Your task to perform on an android device: toggle pop-ups in chrome Image 0: 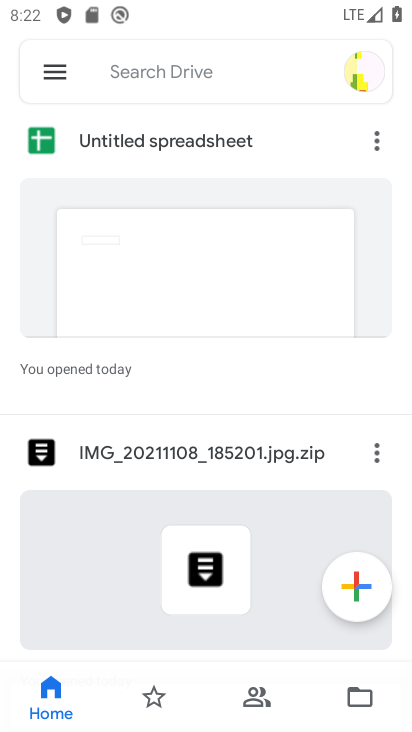
Step 0: press home button
Your task to perform on an android device: toggle pop-ups in chrome Image 1: 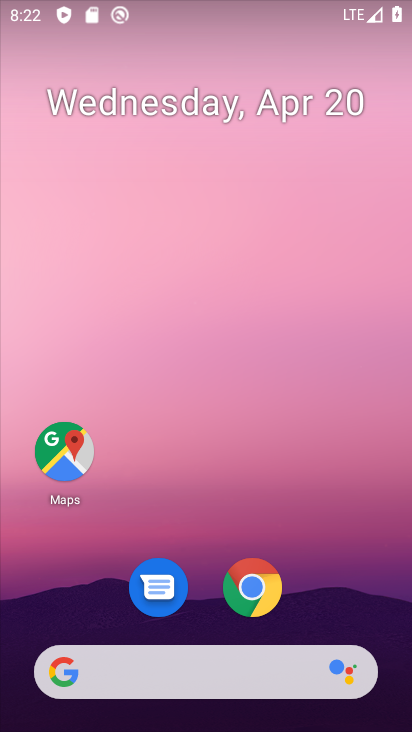
Step 1: drag from (352, 590) to (357, 156)
Your task to perform on an android device: toggle pop-ups in chrome Image 2: 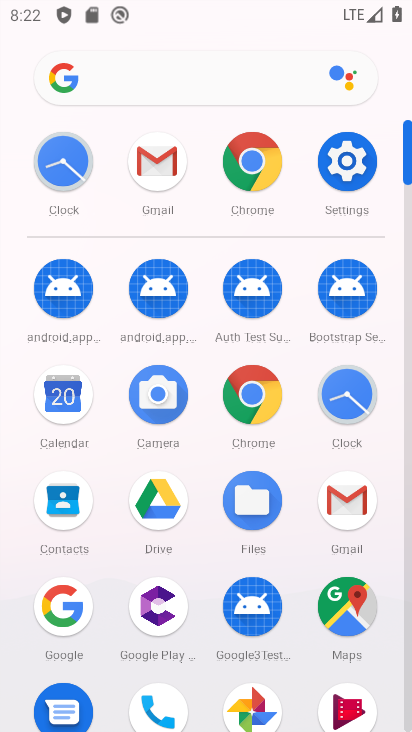
Step 2: click (256, 406)
Your task to perform on an android device: toggle pop-ups in chrome Image 3: 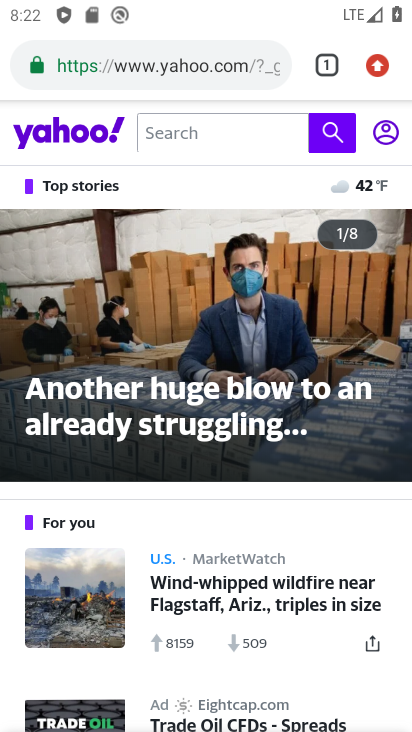
Step 3: click (376, 62)
Your task to perform on an android device: toggle pop-ups in chrome Image 4: 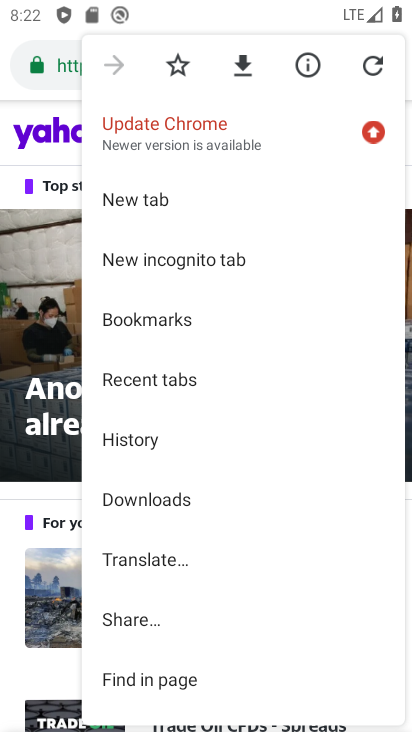
Step 4: drag from (311, 545) to (311, 369)
Your task to perform on an android device: toggle pop-ups in chrome Image 5: 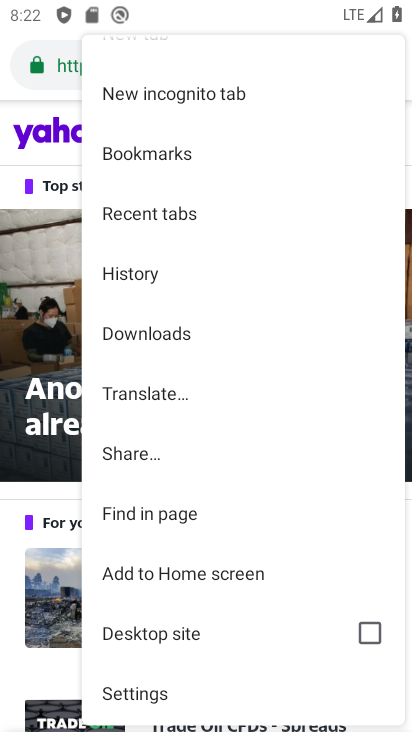
Step 5: drag from (308, 604) to (311, 427)
Your task to perform on an android device: toggle pop-ups in chrome Image 6: 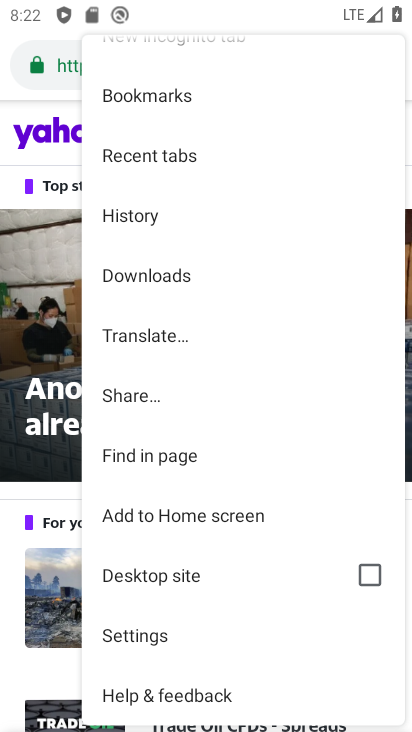
Step 6: click (169, 641)
Your task to perform on an android device: toggle pop-ups in chrome Image 7: 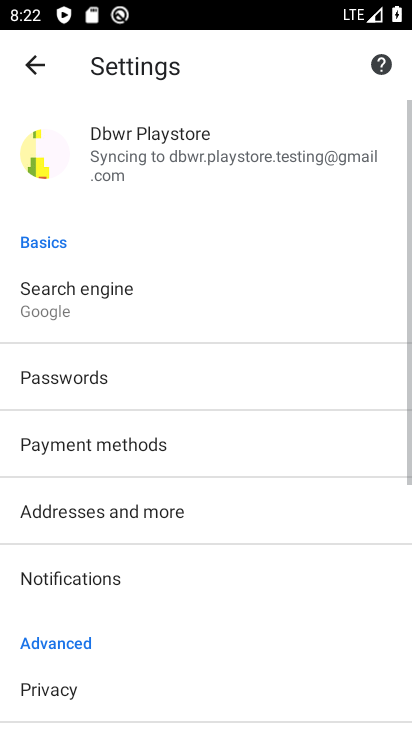
Step 7: drag from (268, 586) to (270, 491)
Your task to perform on an android device: toggle pop-ups in chrome Image 8: 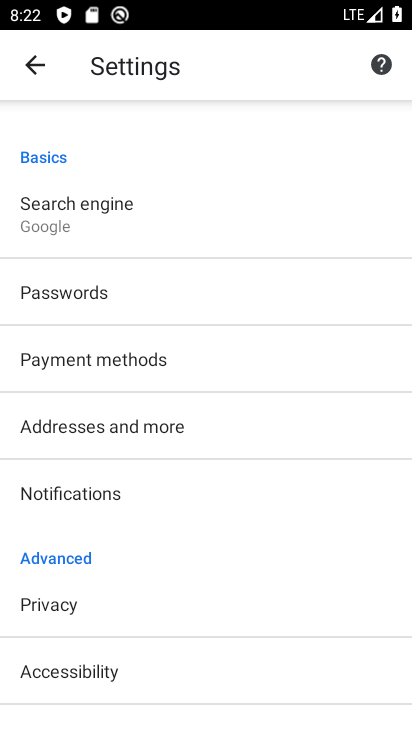
Step 8: drag from (312, 586) to (324, 478)
Your task to perform on an android device: toggle pop-ups in chrome Image 9: 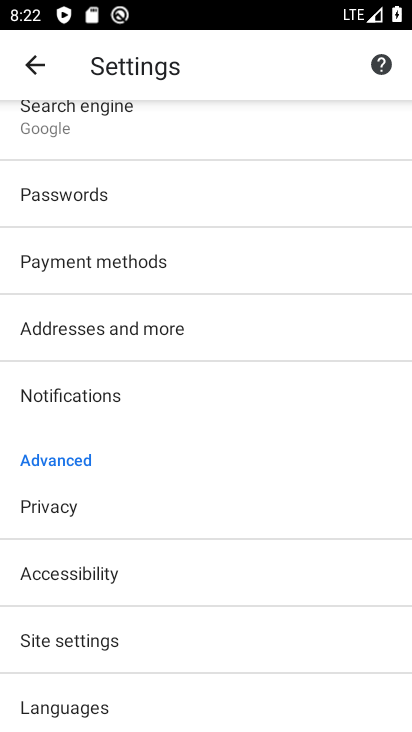
Step 9: drag from (328, 620) to (332, 511)
Your task to perform on an android device: toggle pop-ups in chrome Image 10: 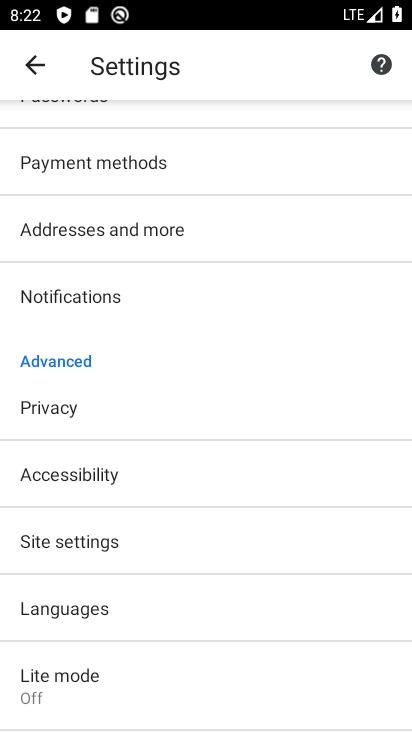
Step 10: drag from (333, 663) to (337, 536)
Your task to perform on an android device: toggle pop-ups in chrome Image 11: 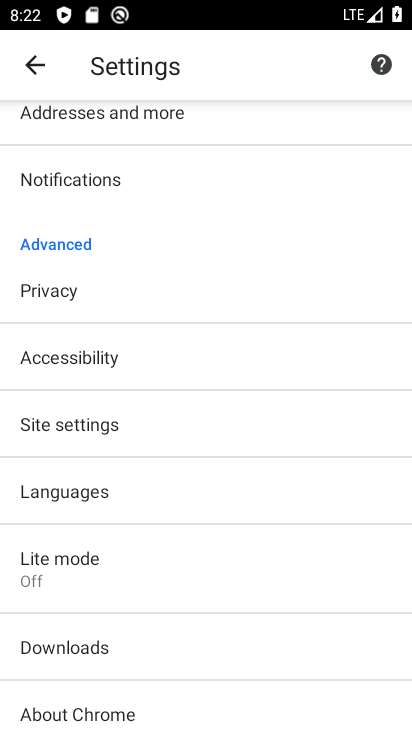
Step 11: drag from (320, 603) to (336, 465)
Your task to perform on an android device: toggle pop-ups in chrome Image 12: 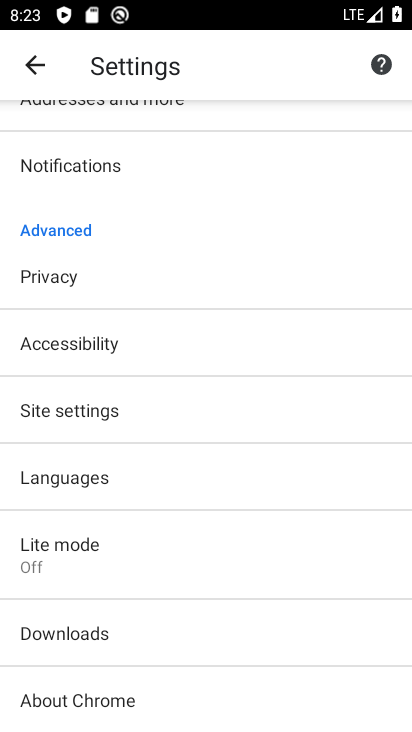
Step 12: click (322, 432)
Your task to perform on an android device: toggle pop-ups in chrome Image 13: 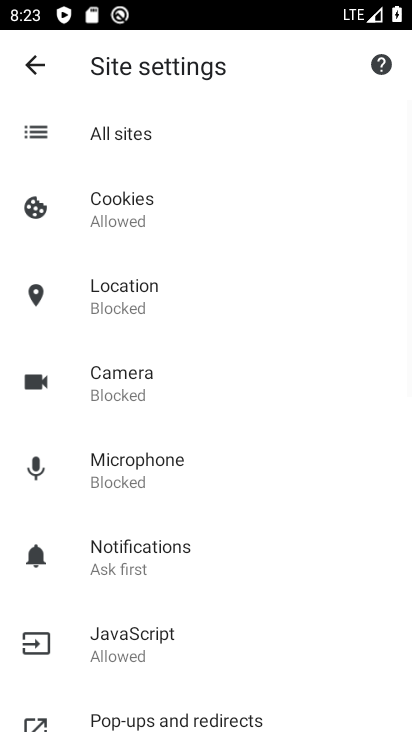
Step 13: drag from (315, 578) to (315, 497)
Your task to perform on an android device: toggle pop-ups in chrome Image 14: 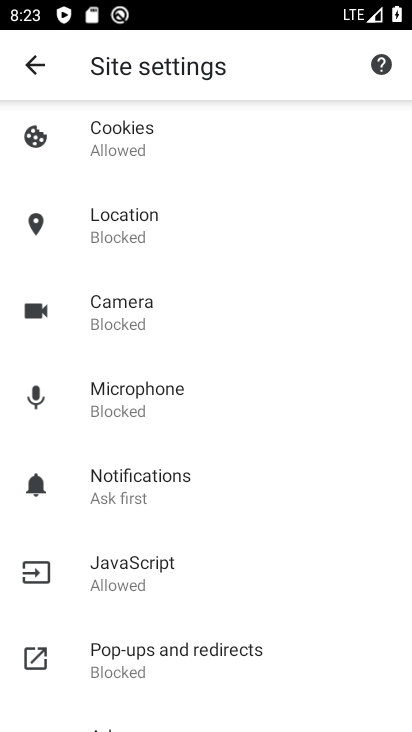
Step 14: drag from (328, 612) to (324, 507)
Your task to perform on an android device: toggle pop-ups in chrome Image 15: 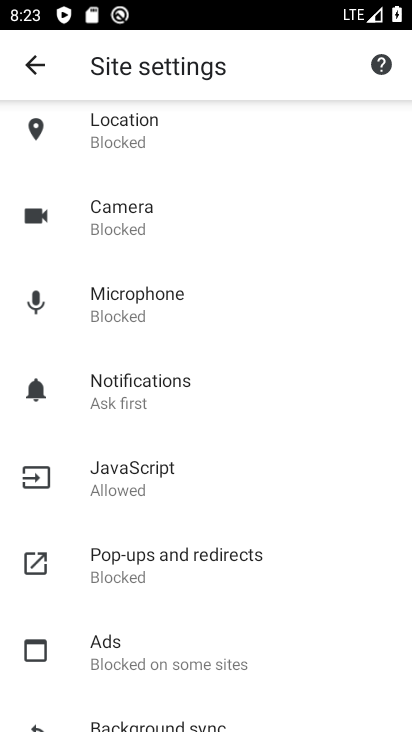
Step 15: drag from (330, 628) to (338, 514)
Your task to perform on an android device: toggle pop-ups in chrome Image 16: 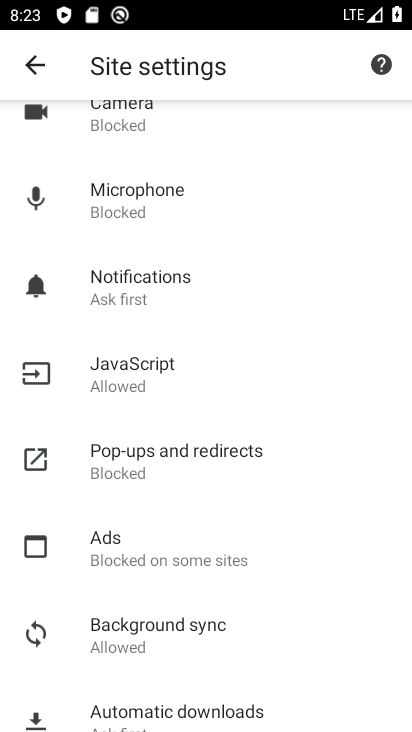
Step 16: drag from (339, 610) to (340, 496)
Your task to perform on an android device: toggle pop-ups in chrome Image 17: 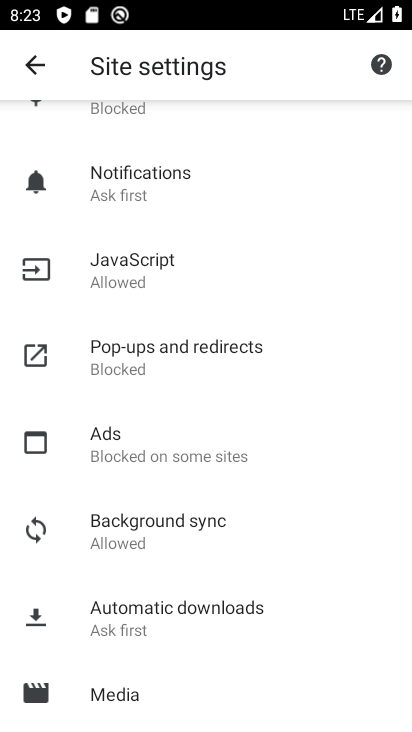
Step 17: drag from (352, 636) to (352, 513)
Your task to perform on an android device: toggle pop-ups in chrome Image 18: 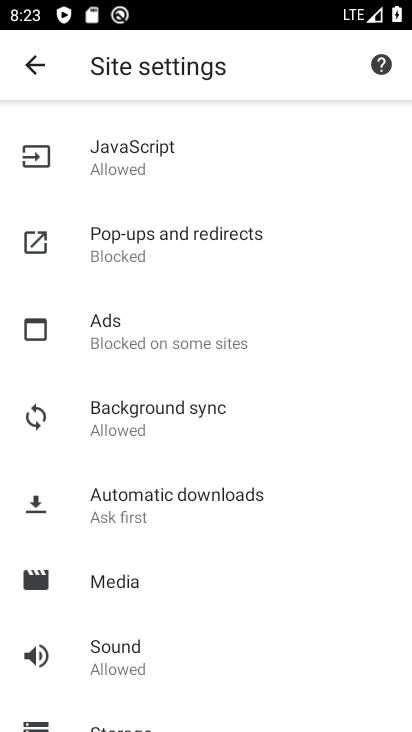
Step 18: drag from (342, 608) to (338, 525)
Your task to perform on an android device: toggle pop-ups in chrome Image 19: 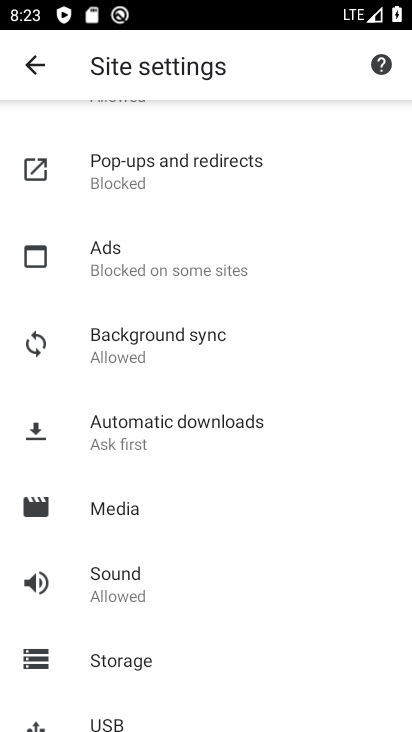
Step 19: click (219, 161)
Your task to perform on an android device: toggle pop-ups in chrome Image 20: 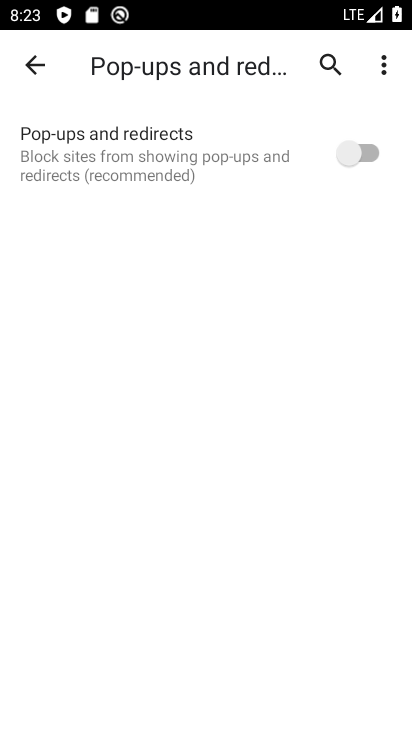
Step 20: click (354, 154)
Your task to perform on an android device: toggle pop-ups in chrome Image 21: 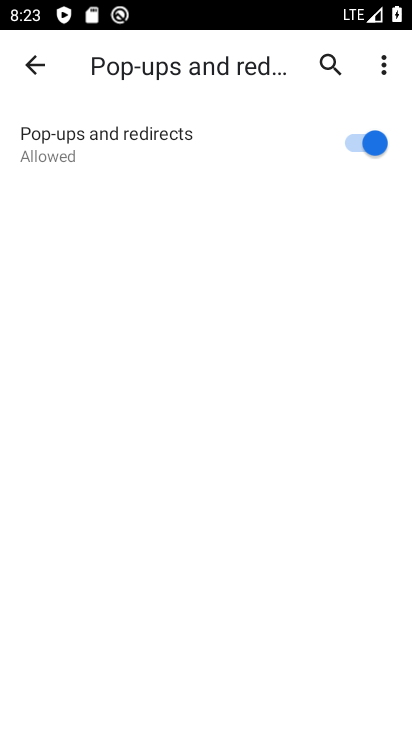
Step 21: task complete